Your task to perform on an android device: turn on bluetooth scan Image 0: 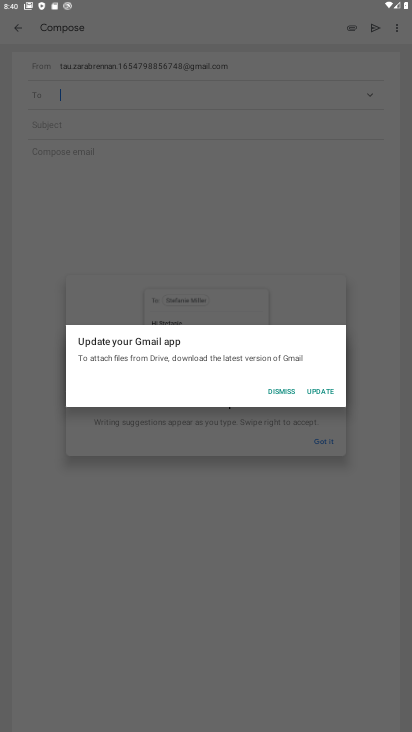
Step 0: press home button
Your task to perform on an android device: turn on bluetooth scan Image 1: 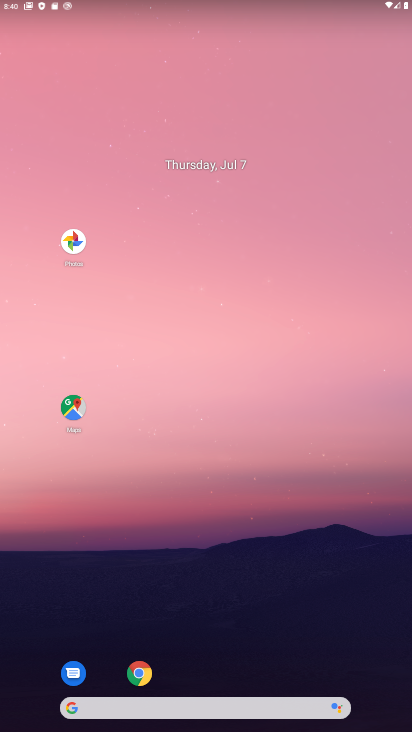
Step 1: drag from (276, 619) to (258, 265)
Your task to perform on an android device: turn on bluetooth scan Image 2: 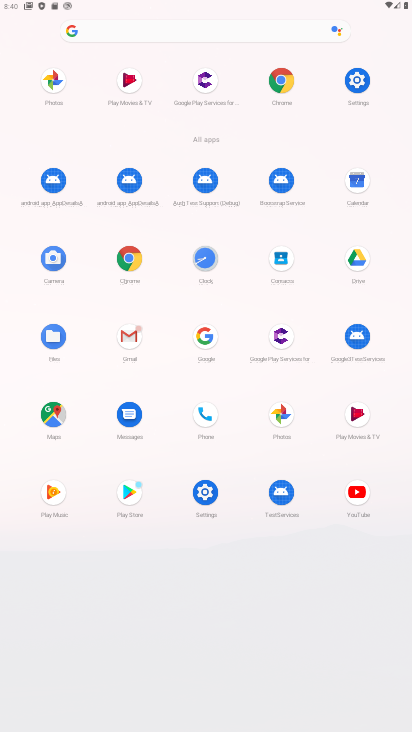
Step 2: drag from (200, 492) to (131, 230)
Your task to perform on an android device: turn on bluetooth scan Image 3: 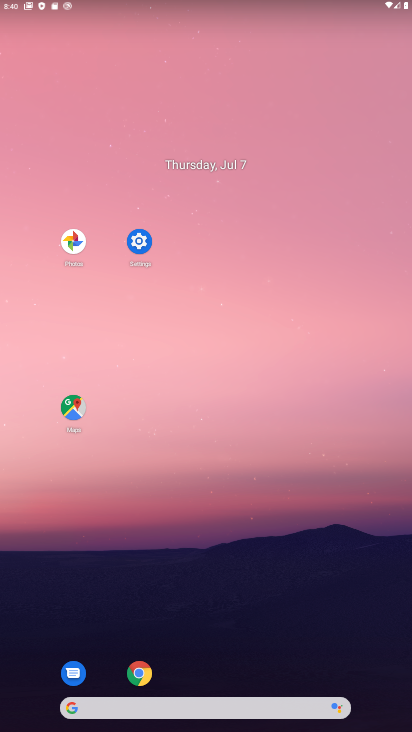
Step 3: click (141, 237)
Your task to perform on an android device: turn on bluetooth scan Image 4: 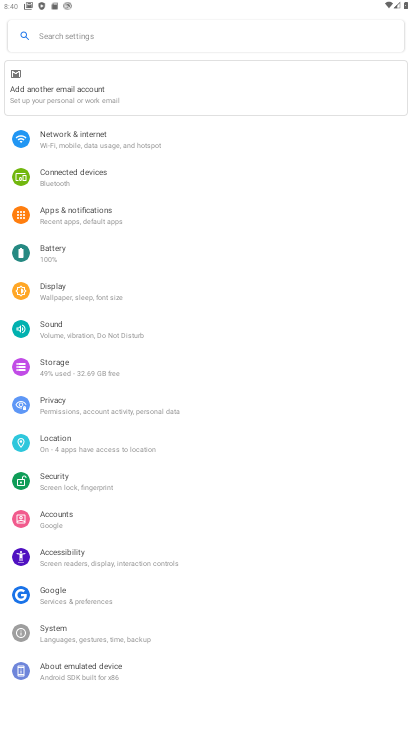
Step 4: click (92, 450)
Your task to perform on an android device: turn on bluetooth scan Image 5: 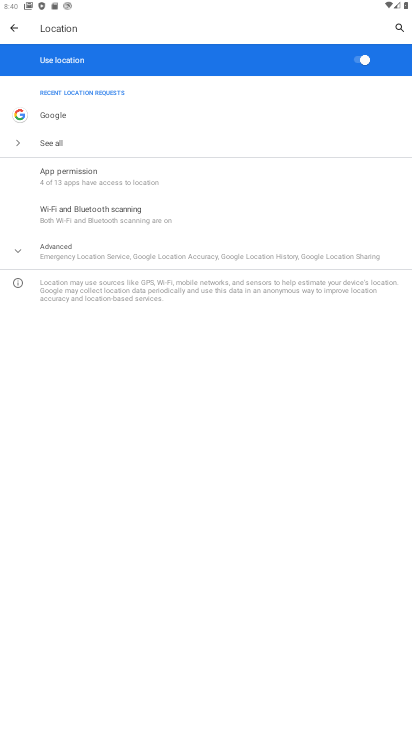
Step 5: click (62, 228)
Your task to perform on an android device: turn on bluetooth scan Image 6: 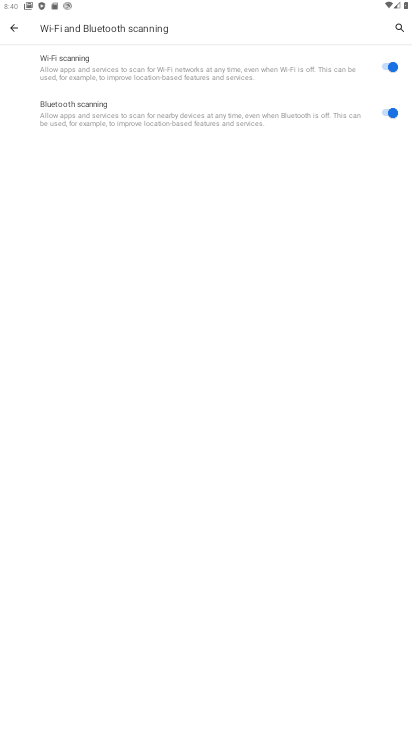
Step 6: task complete